Your task to perform on an android device: Go to Yahoo.com Image 0: 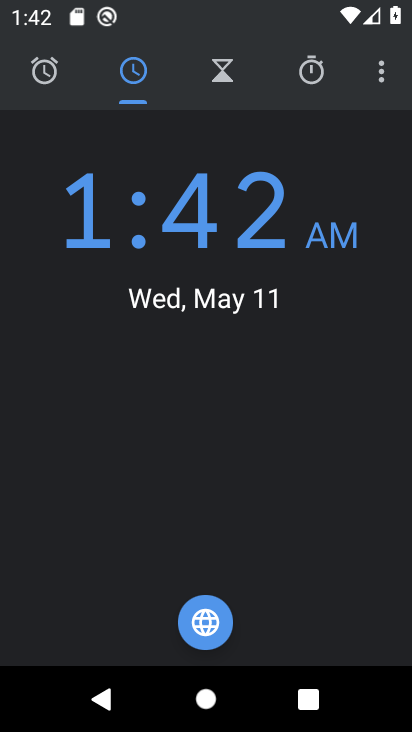
Step 0: press home button
Your task to perform on an android device: Go to Yahoo.com Image 1: 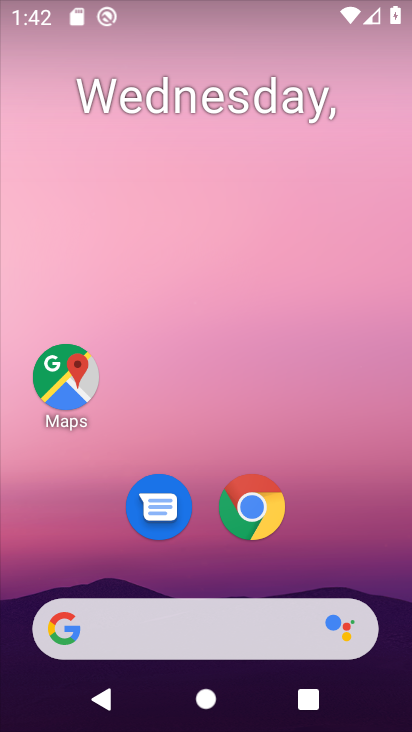
Step 1: click (249, 503)
Your task to perform on an android device: Go to Yahoo.com Image 2: 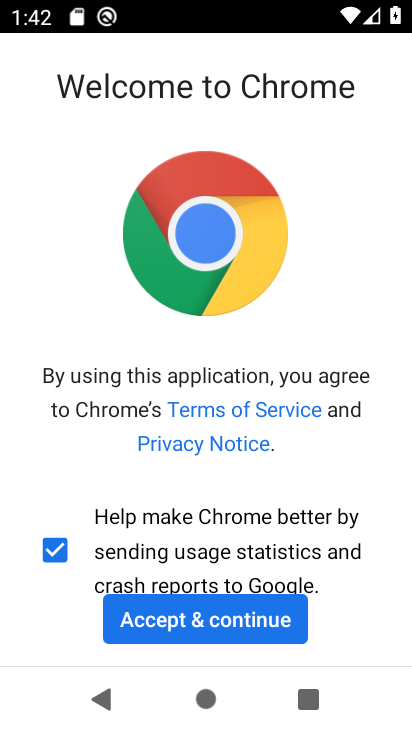
Step 2: click (144, 629)
Your task to perform on an android device: Go to Yahoo.com Image 3: 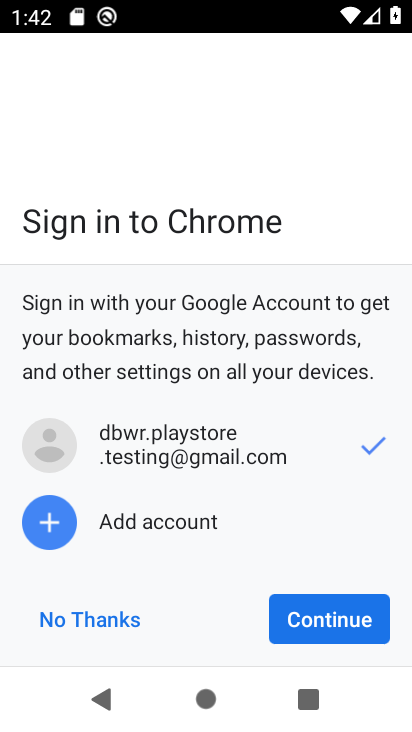
Step 3: click (358, 600)
Your task to perform on an android device: Go to Yahoo.com Image 4: 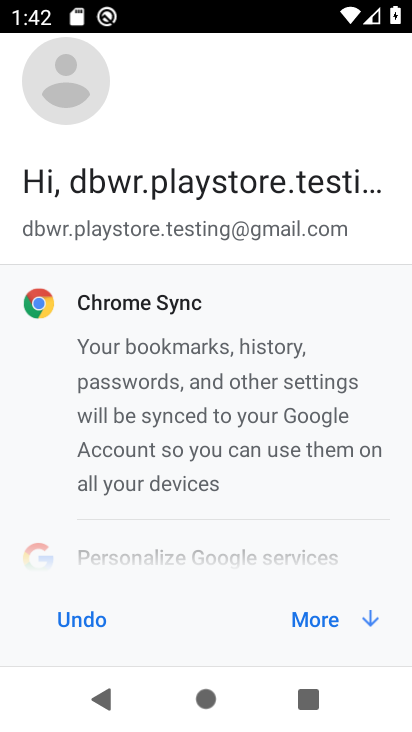
Step 4: click (350, 609)
Your task to perform on an android device: Go to Yahoo.com Image 5: 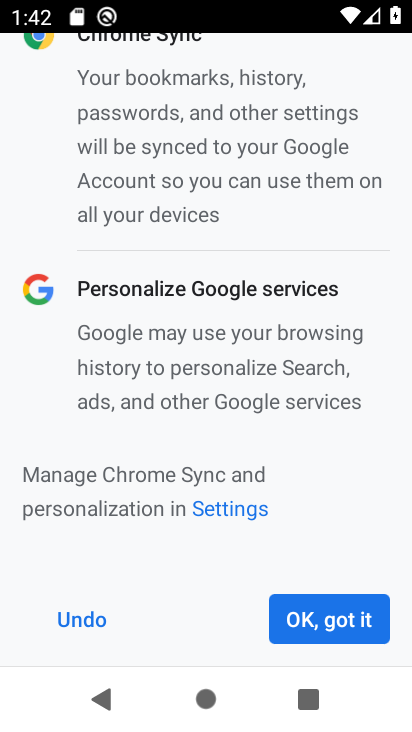
Step 5: click (304, 623)
Your task to perform on an android device: Go to Yahoo.com Image 6: 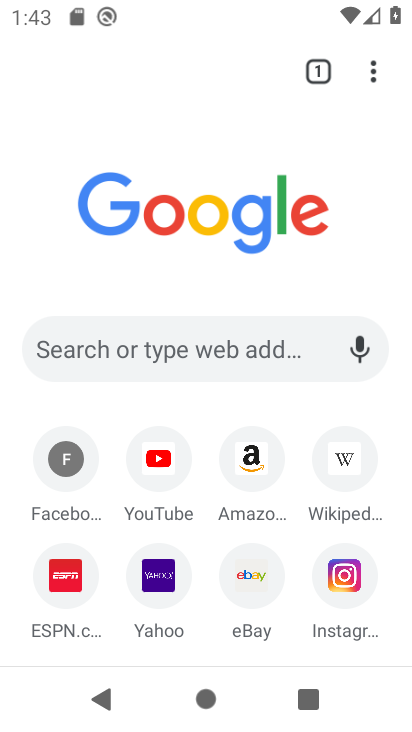
Step 6: click (150, 580)
Your task to perform on an android device: Go to Yahoo.com Image 7: 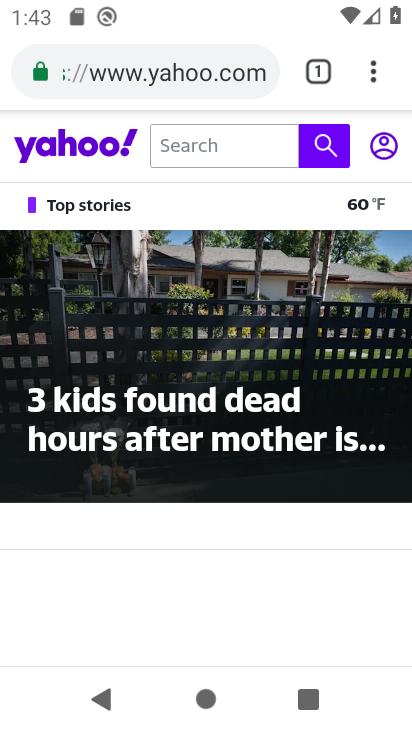
Step 7: task complete